Your task to perform on an android device: Open ESPN.com Image 0: 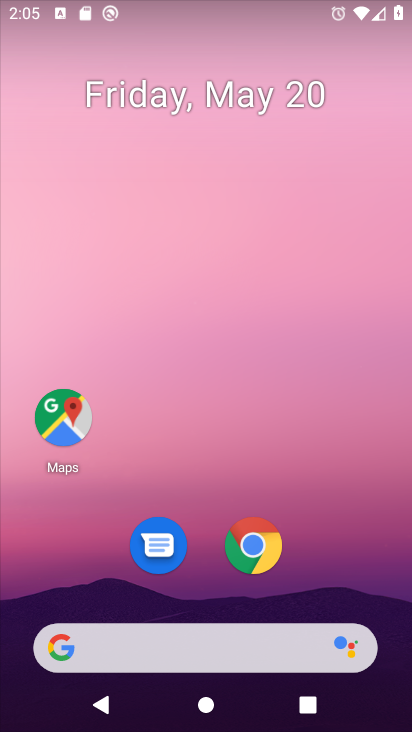
Step 0: drag from (305, 623) to (352, 38)
Your task to perform on an android device: Open ESPN.com Image 1: 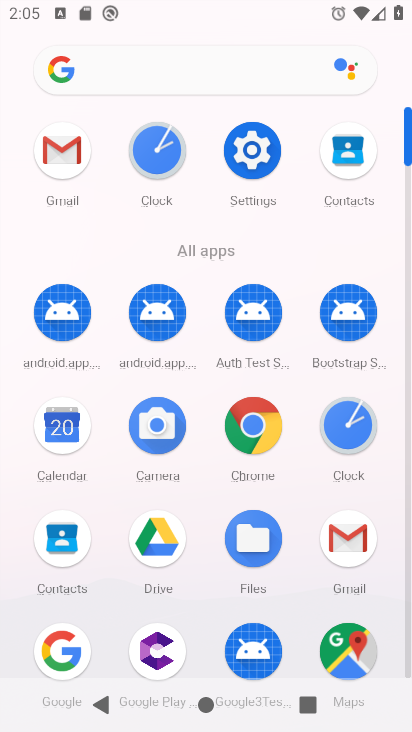
Step 1: click (256, 426)
Your task to perform on an android device: Open ESPN.com Image 2: 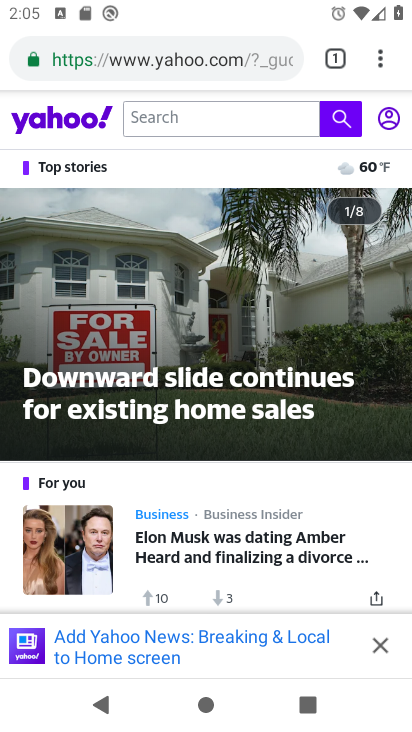
Step 2: click (256, 53)
Your task to perform on an android device: Open ESPN.com Image 3: 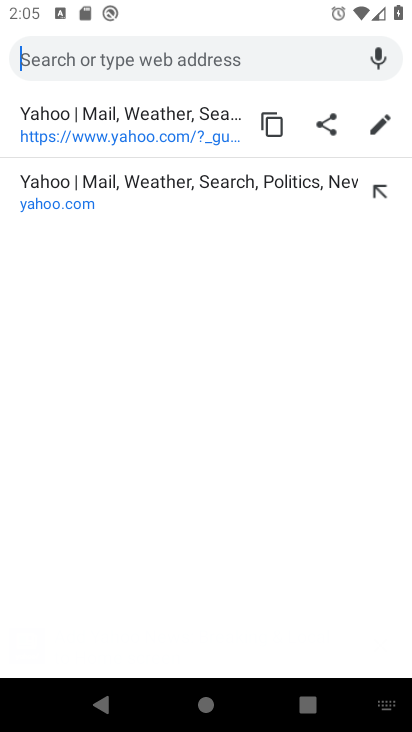
Step 3: type "espn.com"
Your task to perform on an android device: Open ESPN.com Image 4: 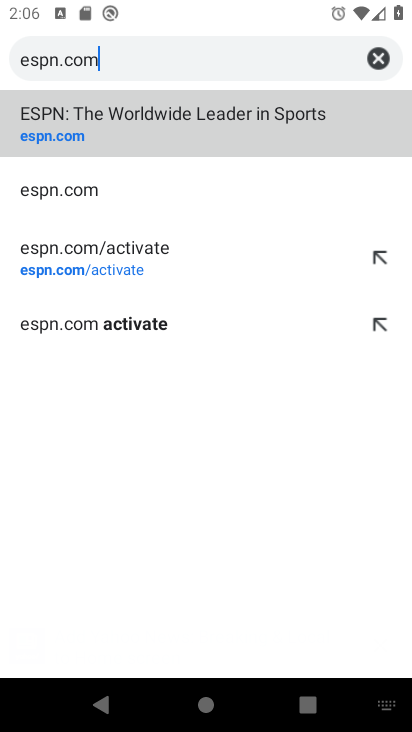
Step 4: click (85, 143)
Your task to perform on an android device: Open ESPN.com Image 5: 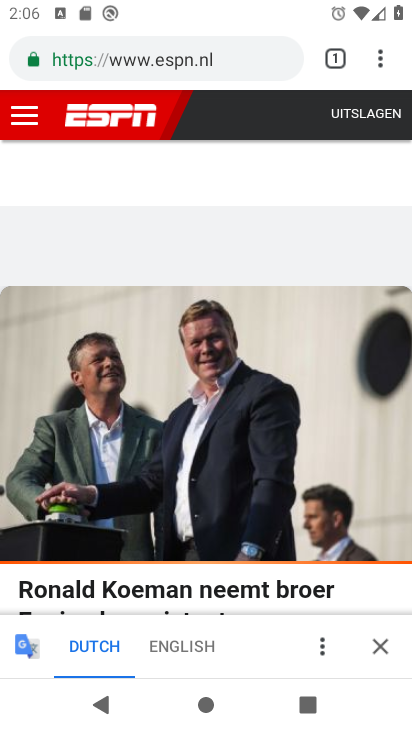
Step 5: task complete